Your task to perform on an android device: What is the recent news? Image 0: 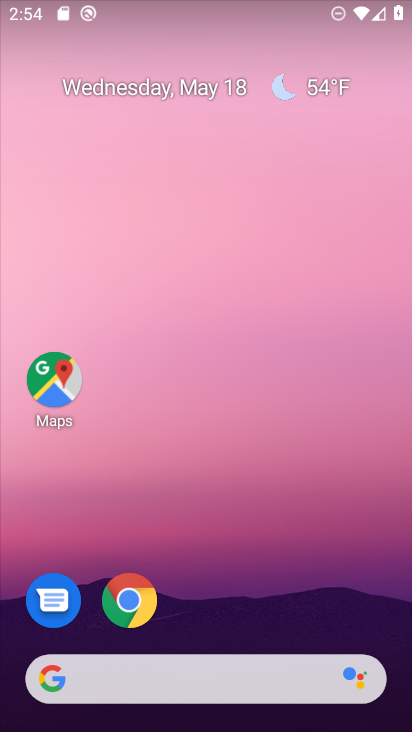
Step 0: click (204, 679)
Your task to perform on an android device: What is the recent news? Image 1: 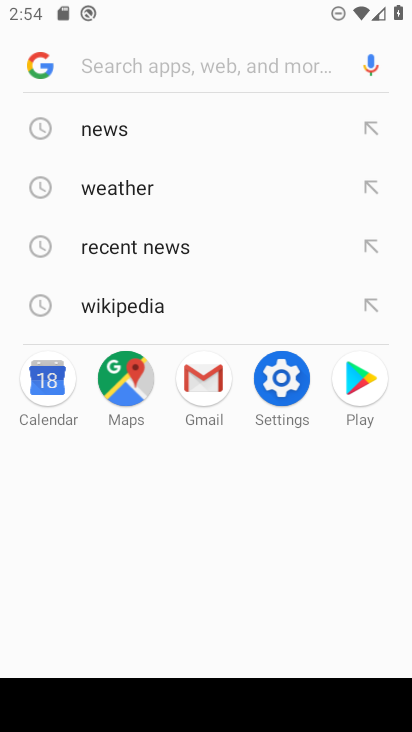
Step 1: click (184, 244)
Your task to perform on an android device: What is the recent news? Image 2: 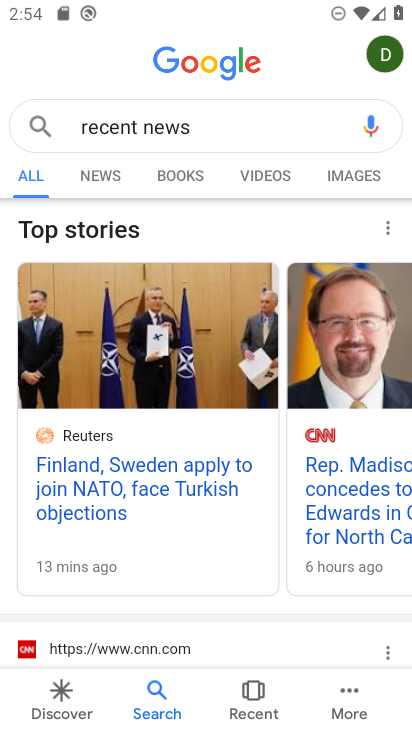
Step 2: task complete